Your task to perform on an android device: Go to calendar. Show me events next week Image 0: 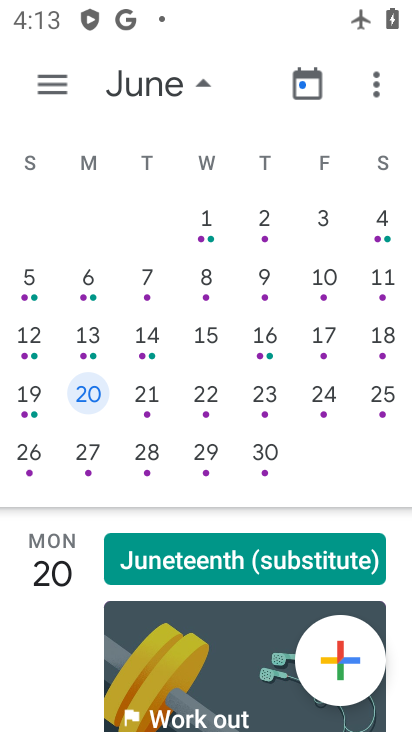
Step 0: press home button
Your task to perform on an android device: Go to calendar. Show me events next week Image 1: 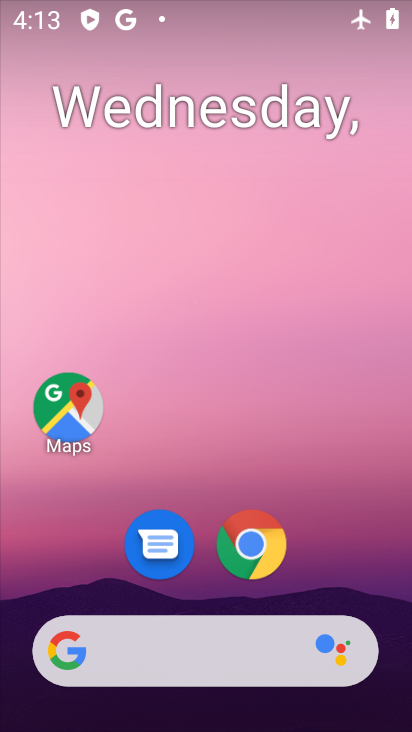
Step 1: drag from (388, 558) to (362, 215)
Your task to perform on an android device: Go to calendar. Show me events next week Image 2: 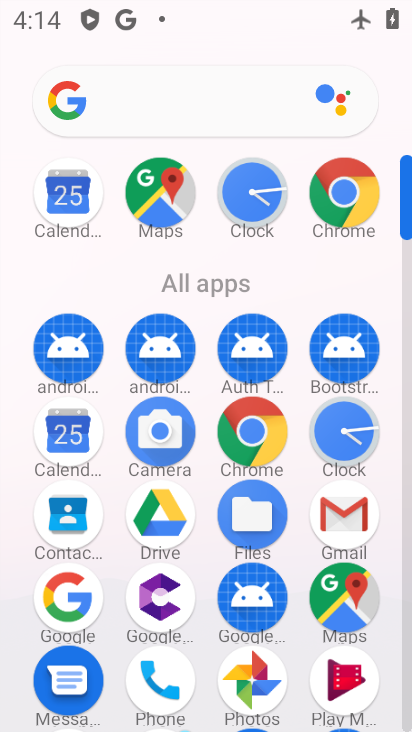
Step 2: click (59, 453)
Your task to perform on an android device: Go to calendar. Show me events next week Image 3: 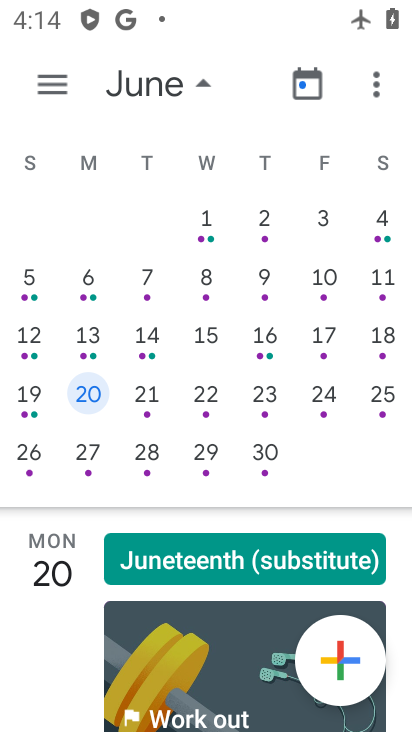
Step 3: drag from (80, 197) to (411, 258)
Your task to perform on an android device: Go to calendar. Show me events next week Image 4: 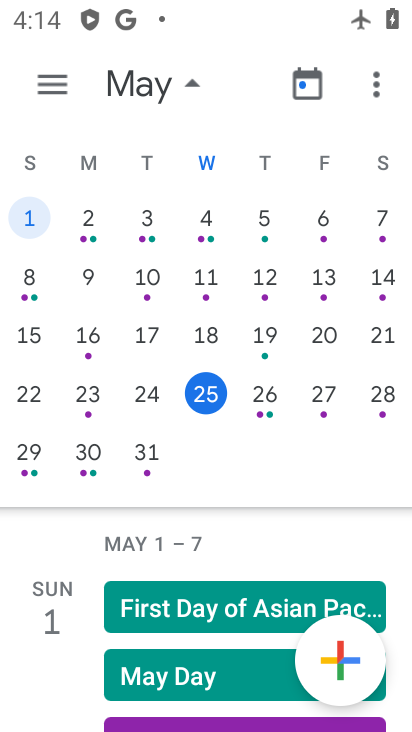
Step 4: click (89, 461)
Your task to perform on an android device: Go to calendar. Show me events next week Image 5: 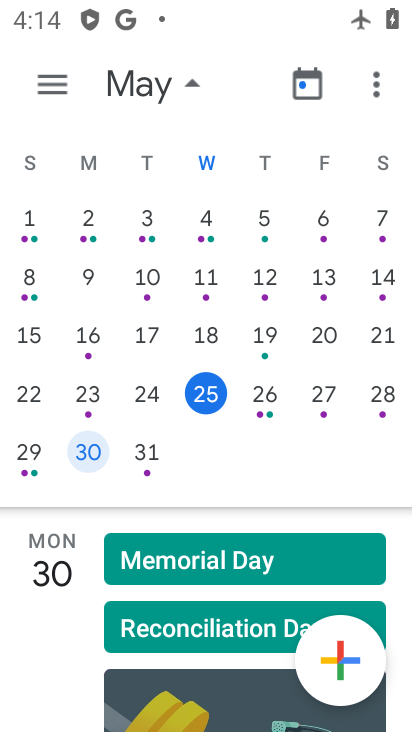
Step 5: task complete